Your task to perform on an android device: Open Android settings Image 0: 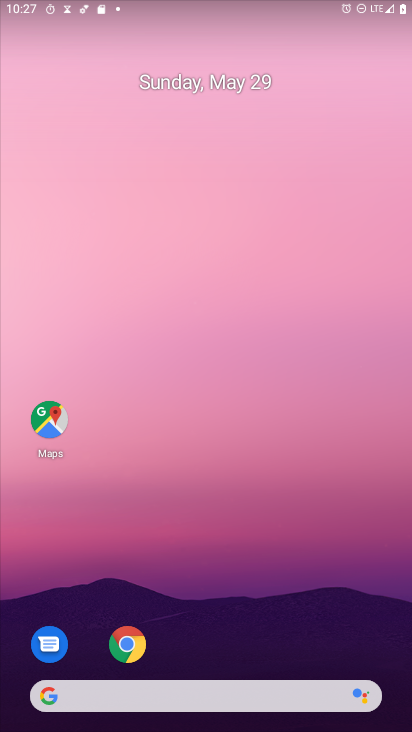
Step 0: drag from (122, 722) to (190, 58)
Your task to perform on an android device: Open Android settings Image 1: 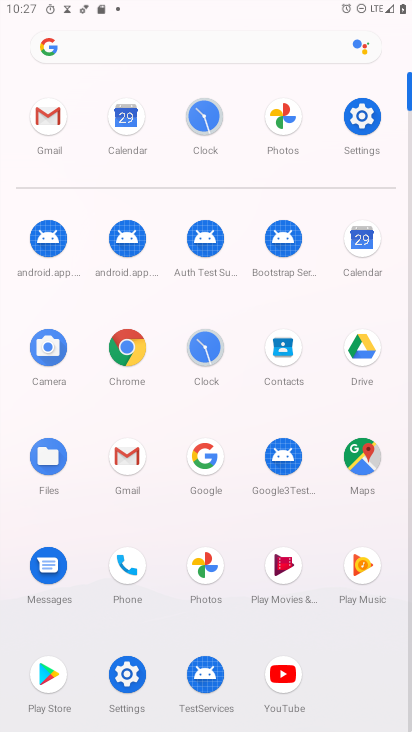
Step 1: click (125, 677)
Your task to perform on an android device: Open Android settings Image 2: 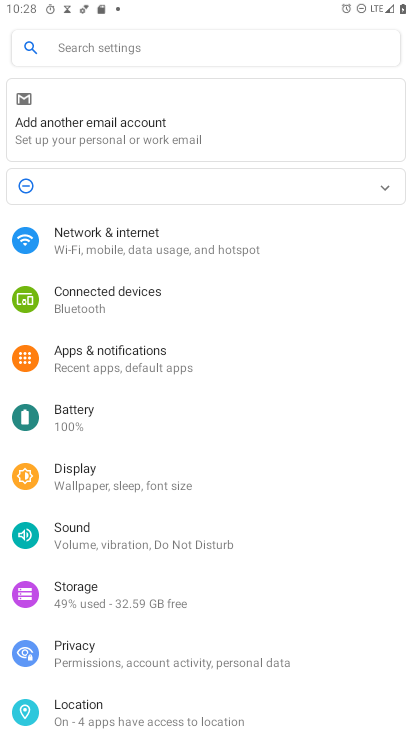
Step 2: task complete